Your task to perform on an android device: turn on data saver in the chrome app Image 0: 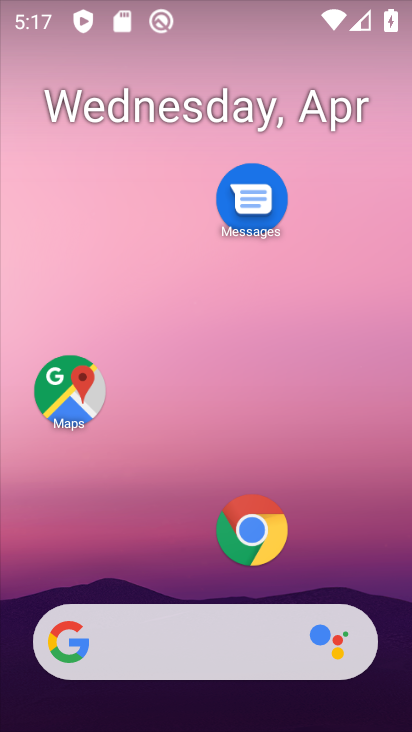
Step 0: click (252, 530)
Your task to perform on an android device: turn on data saver in the chrome app Image 1: 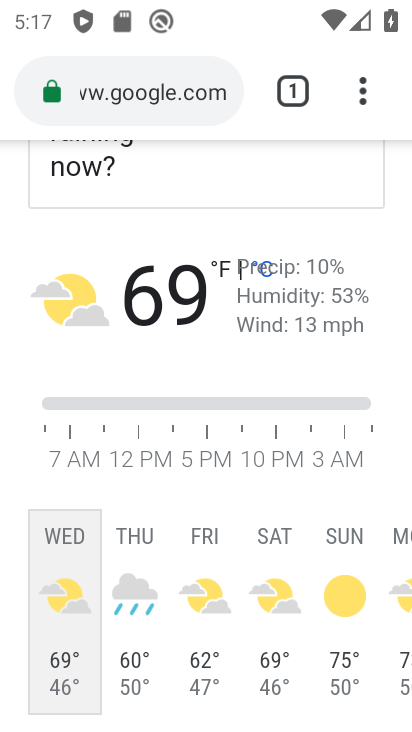
Step 1: click (378, 93)
Your task to perform on an android device: turn on data saver in the chrome app Image 2: 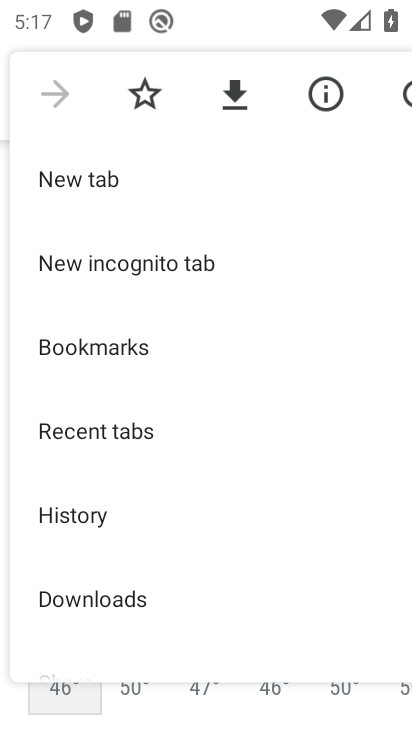
Step 2: drag from (172, 533) to (234, 308)
Your task to perform on an android device: turn on data saver in the chrome app Image 3: 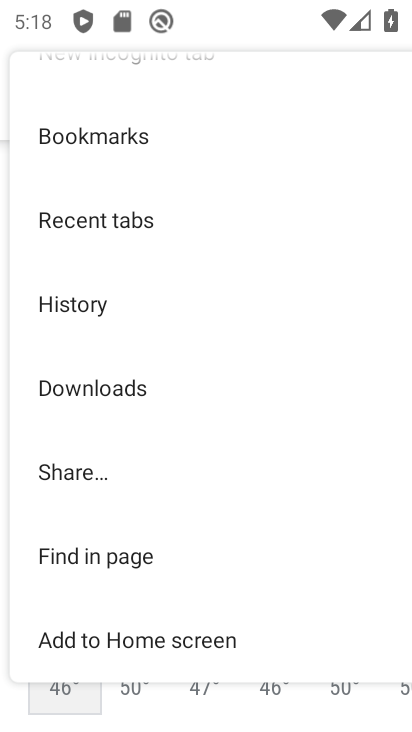
Step 3: drag from (186, 491) to (214, 321)
Your task to perform on an android device: turn on data saver in the chrome app Image 4: 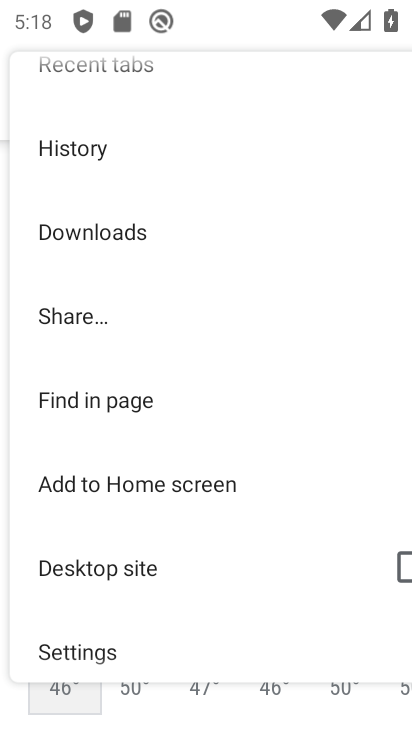
Step 4: drag from (153, 524) to (198, 384)
Your task to perform on an android device: turn on data saver in the chrome app Image 5: 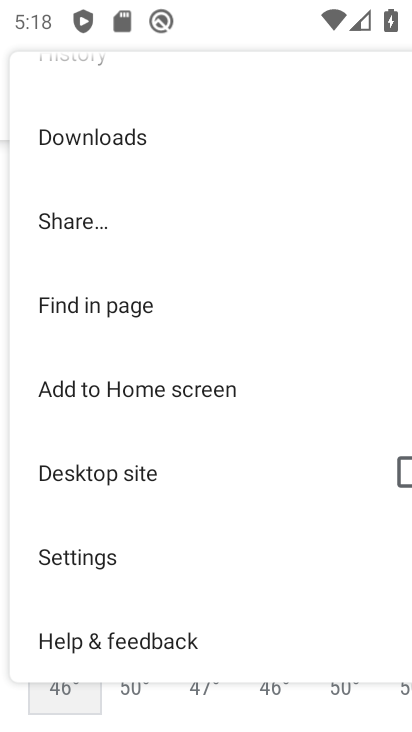
Step 5: click (92, 556)
Your task to perform on an android device: turn on data saver in the chrome app Image 6: 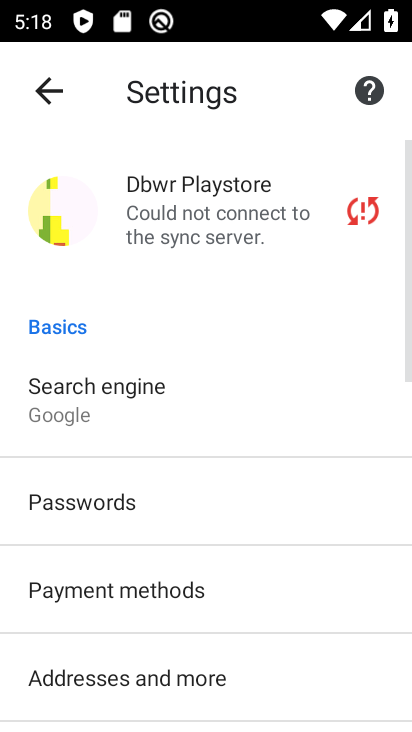
Step 6: drag from (214, 548) to (250, 383)
Your task to perform on an android device: turn on data saver in the chrome app Image 7: 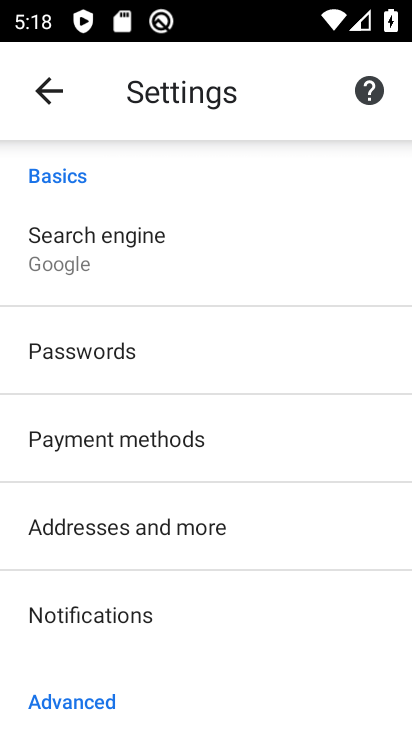
Step 7: drag from (211, 590) to (227, 431)
Your task to perform on an android device: turn on data saver in the chrome app Image 8: 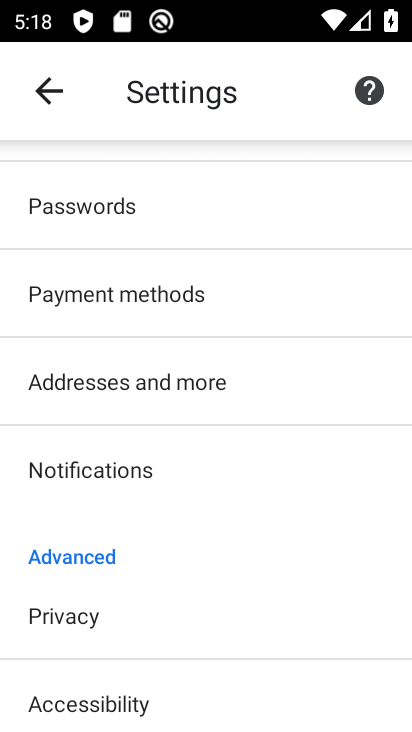
Step 8: drag from (166, 566) to (223, 415)
Your task to perform on an android device: turn on data saver in the chrome app Image 9: 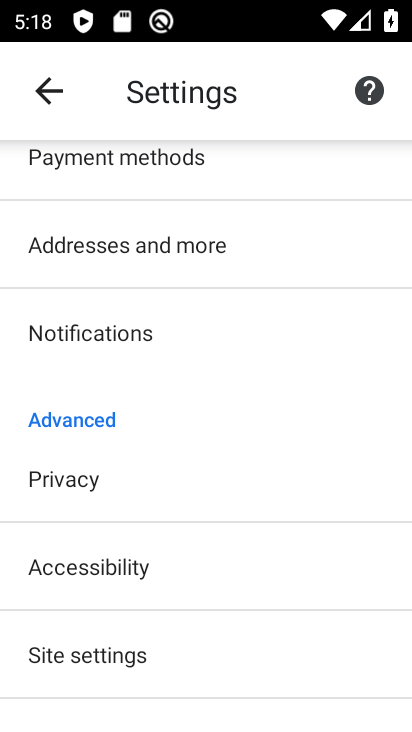
Step 9: drag from (166, 585) to (222, 442)
Your task to perform on an android device: turn on data saver in the chrome app Image 10: 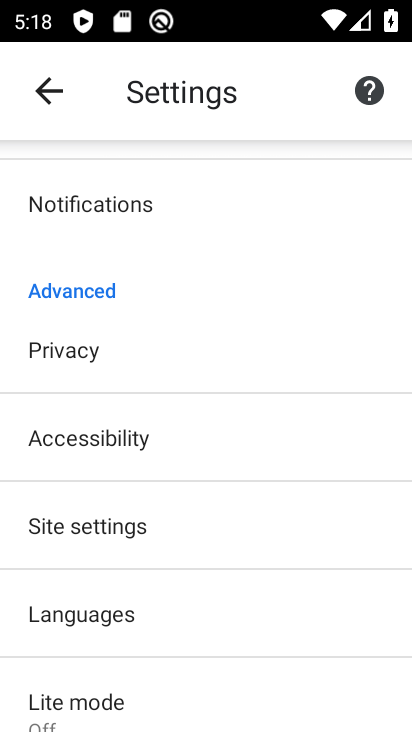
Step 10: drag from (174, 604) to (229, 487)
Your task to perform on an android device: turn on data saver in the chrome app Image 11: 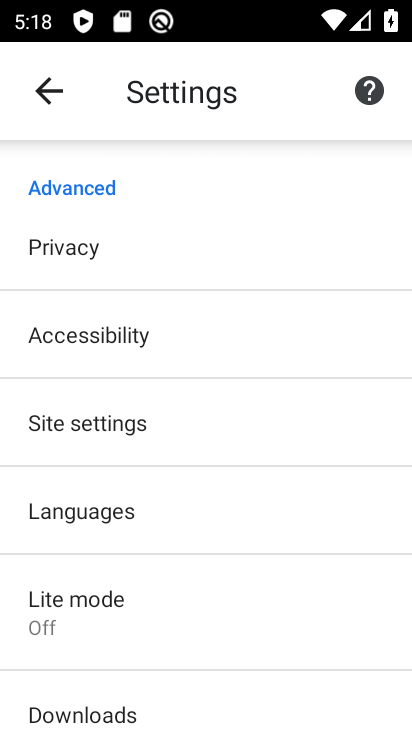
Step 11: click (109, 602)
Your task to perform on an android device: turn on data saver in the chrome app Image 12: 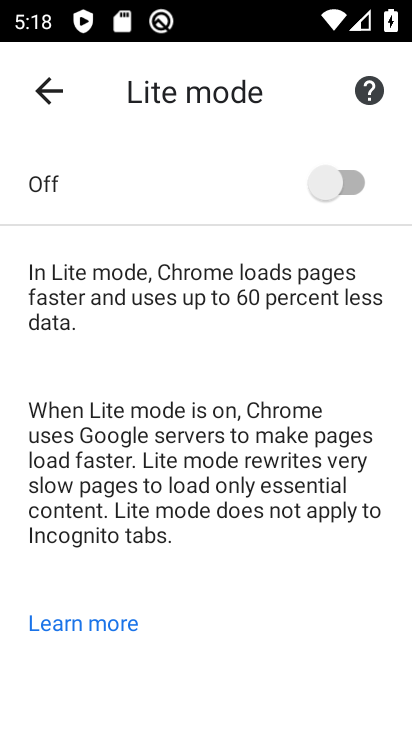
Step 12: click (332, 184)
Your task to perform on an android device: turn on data saver in the chrome app Image 13: 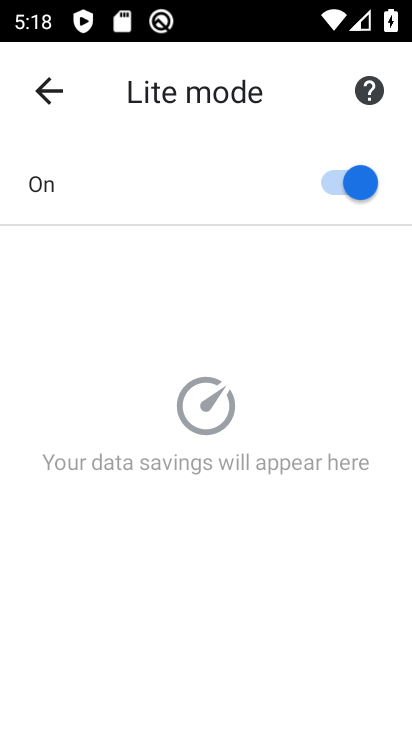
Step 13: task complete